Your task to perform on an android device: Go to Google maps Image 0: 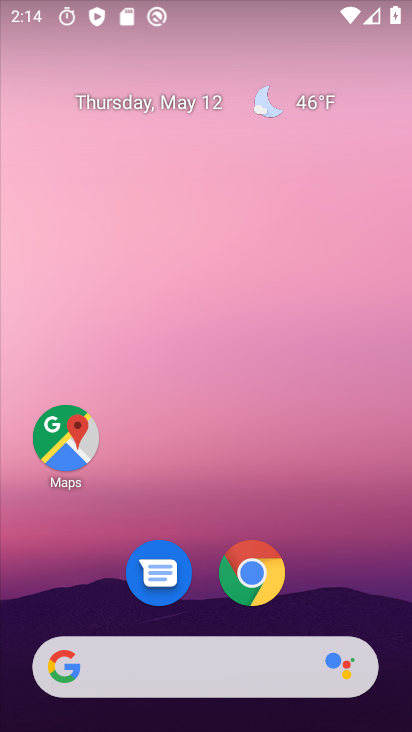
Step 0: click (71, 460)
Your task to perform on an android device: Go to Google maps Image 1: 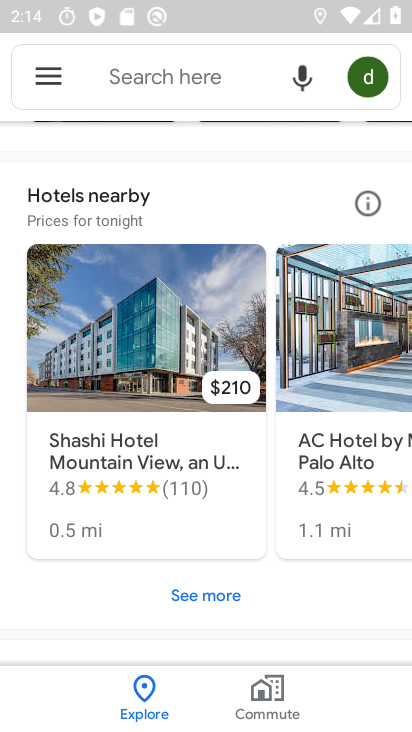
Step 1: task complete